Your task to perform on an android device: set an alarm Image 0: 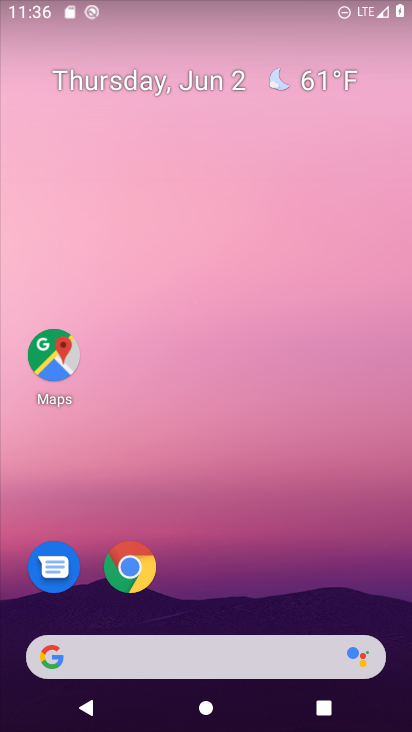
Step 0: drag from (283, 607) to (258, 281)
Your task to perform on an android device: set an alarm Image 1: 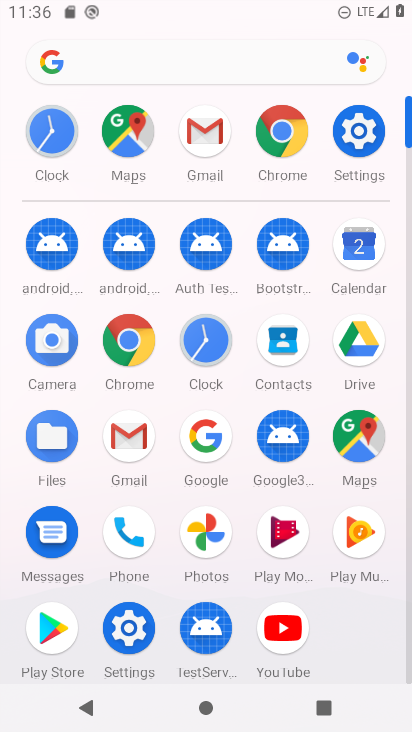
Step 1: click (203, 339)
Your task to perform on an android device: set an alarm Image 2: 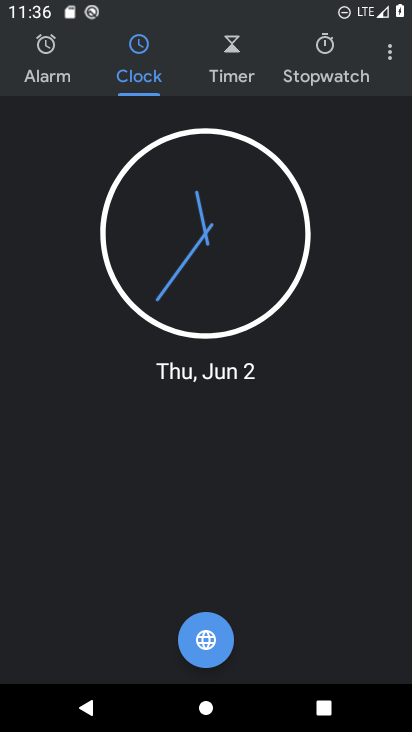
Step 2: click (49, 88)
Your task to perform on an android device: set an alarm Image 3: 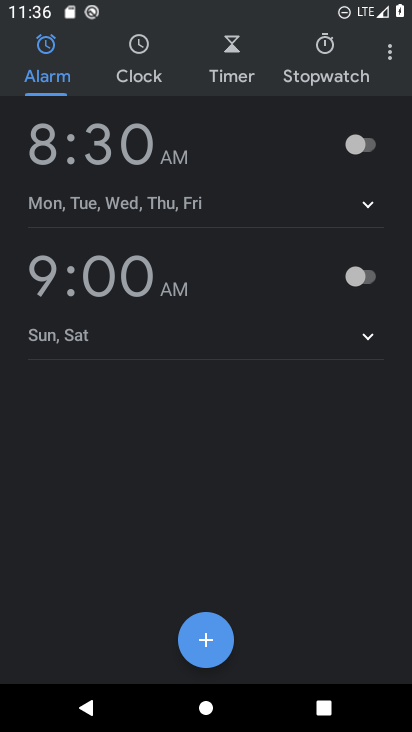
Step 3: click (200, 644)
Your task to perform on an android device: set an alarm Image 4: 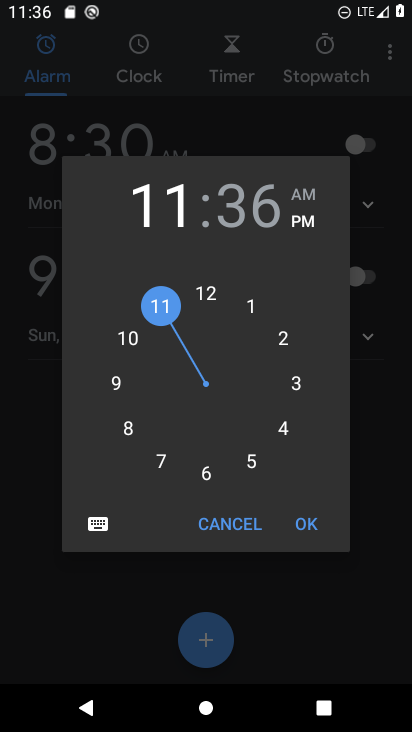
Step 4: click (312, 522)
Your task to perform on an android device: set an alarm Image 5: 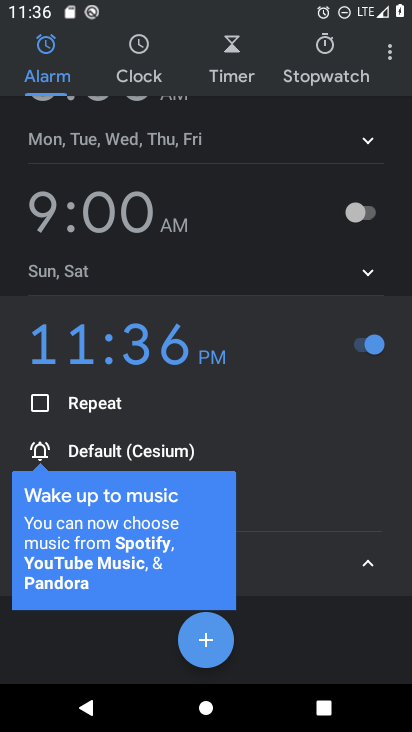
Step 5: task complete